Your task to perform on an android device: turn off location Image 0: 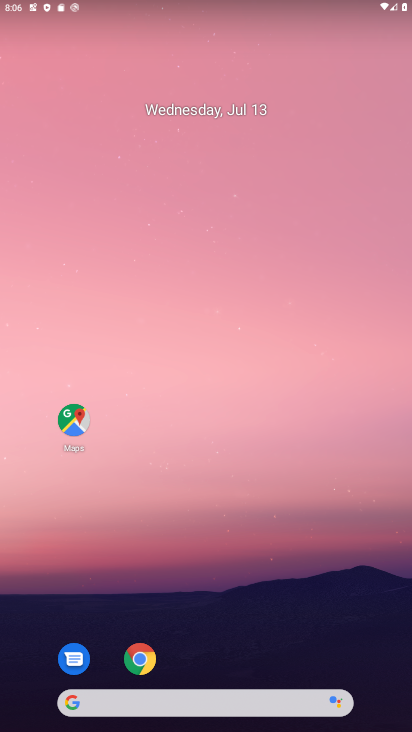
Step 0: drag from (216, 662) to (217, 0)
Your task to perform on an android device: turn off location Image 1: 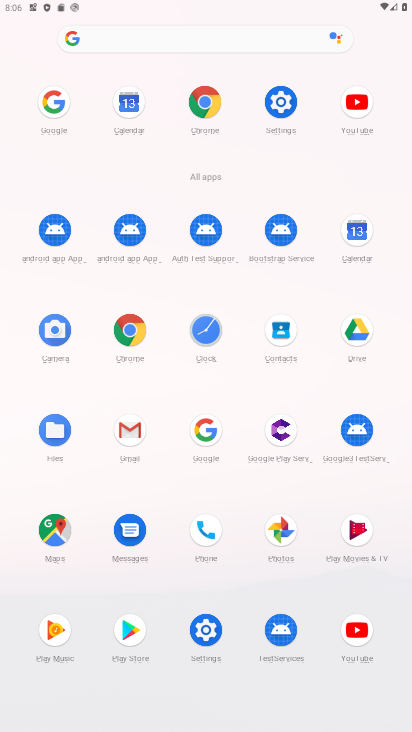
Step 1: click (284, 100)
Your task to perform on an android device: turn off location Image 2: 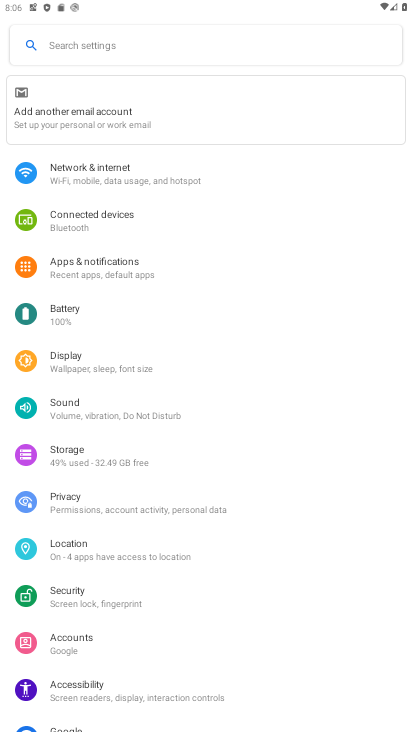
Step 2: click (101, 555)
Your task to perform on an android device: turn off location Image 3: 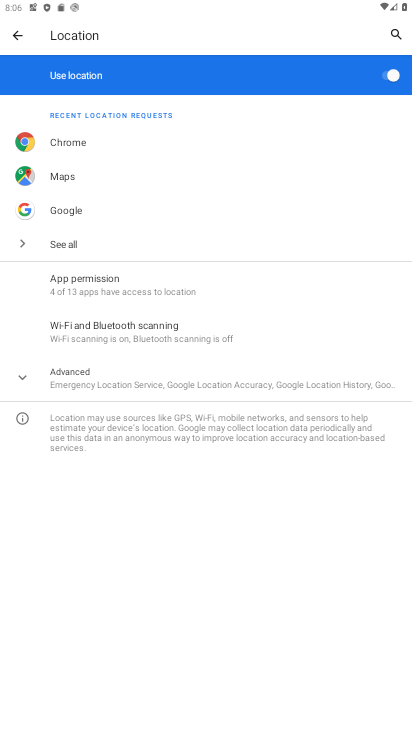
Step 3: click (385, 74)
Your task to perform on an android device: turn off location Image 4: 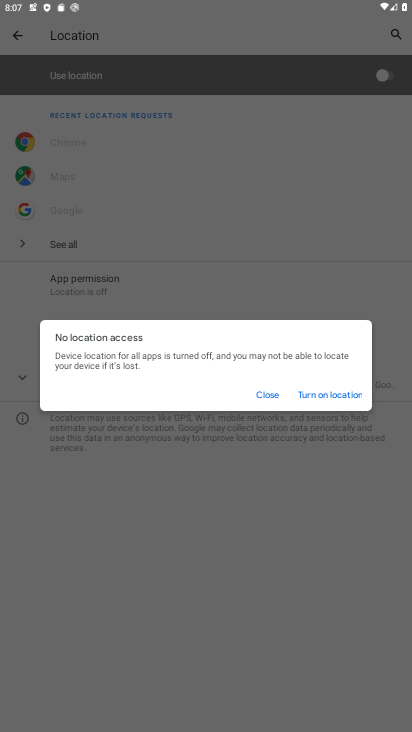
Step 4: task complete